Your task to perform on an android device: manage bookmarks in the chrome app Image 0: 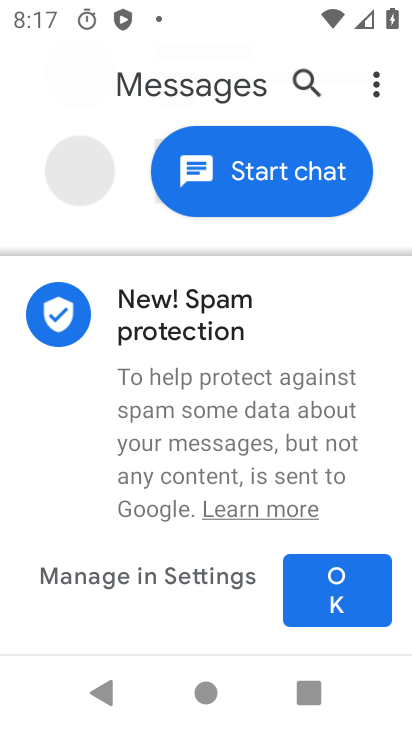
Step 0: press home button
Your task to perform on an android device: manage bookmarks in the chrome app Image 1: 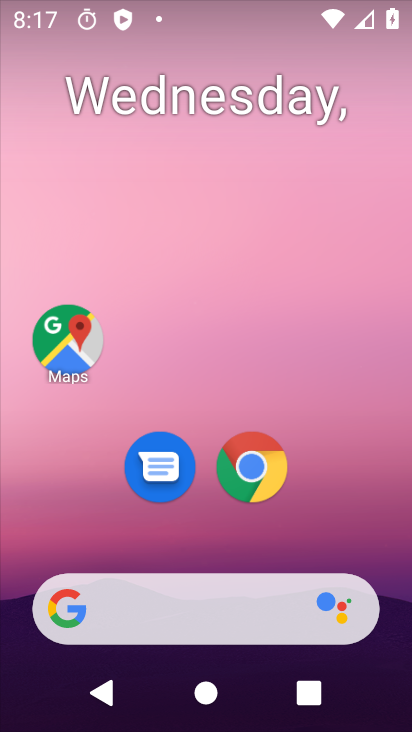
Step 1: click (247, 470)
Your task to perform on an android device: manage bookmarks in the chrome app Image 2: 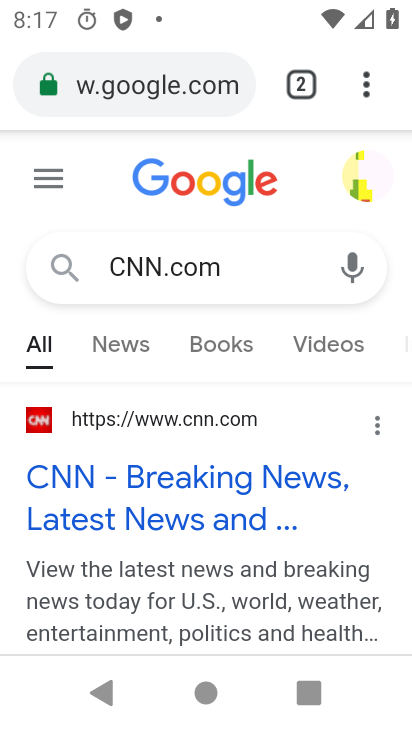
Step 2: click (361, 77)
Your task to perform on an android device: manage bookmarks in the chrome app Image 3: 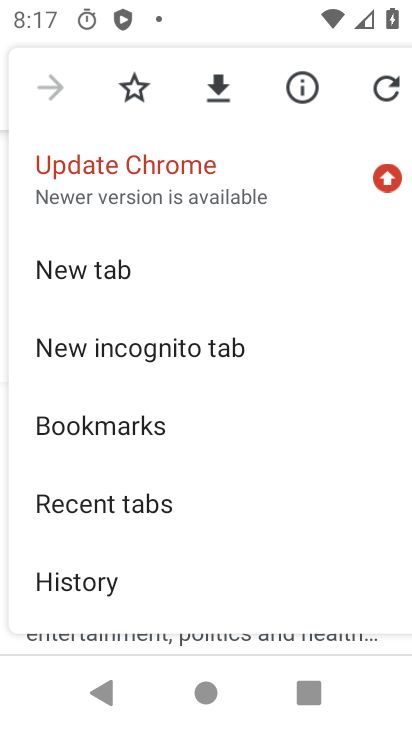
Step 3: drag from (281, 564) to (287, 252)
Your task to perform on an android device: manage bookmarks in the chrome app Image 4: 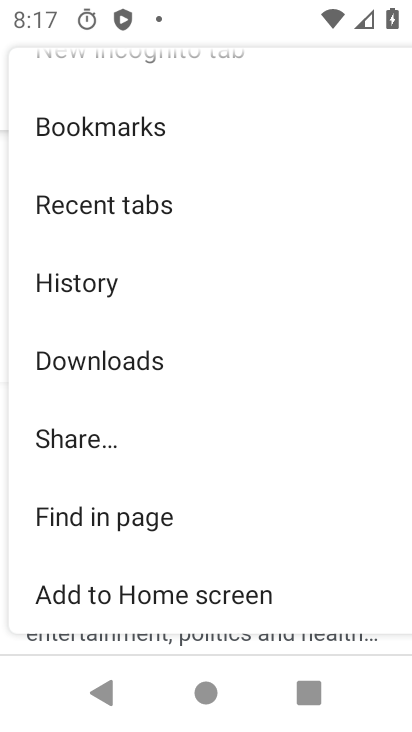
Step 4: drag from (274, 569) to (270, 257)
Your task to perform on an android device: manage bookmarks in the chrome app Image 5: 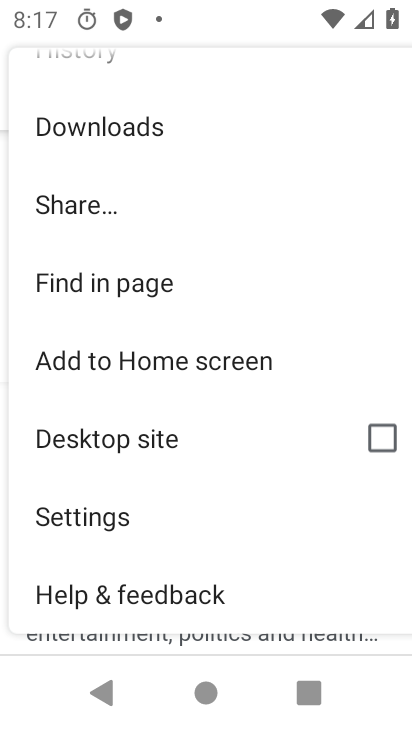
Step 5: drag from (254, 275) to (253, 531)
Your task to perform on an android device: manage bookmarks in the chrome app Image 6: 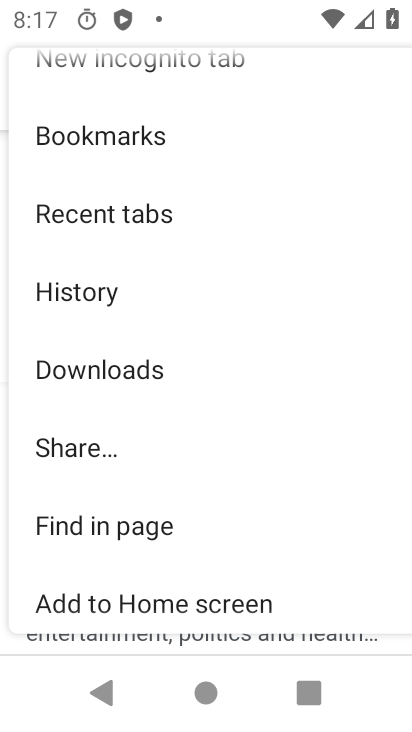
Step 6: drag from (297, 354) to (301, 511)
Your task to perform on an android device: manage bookmarks in the chrome app Image 7: 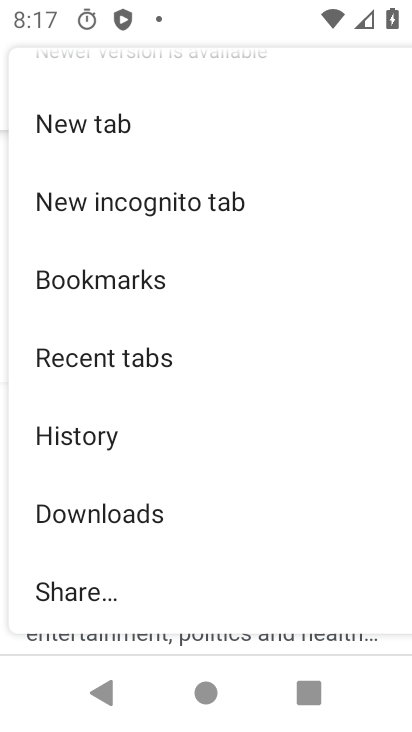
Step 7: click (117, 277)
Your task to perform on an android device: manage bookmarks in the chrome app Image 8: 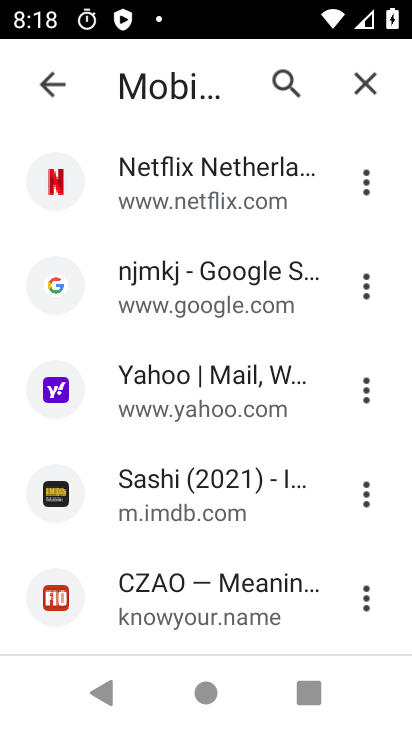
Step 8: click (365, 286)
Your task to perform on an android device: manage bookmarks in the chrome app Image 9: 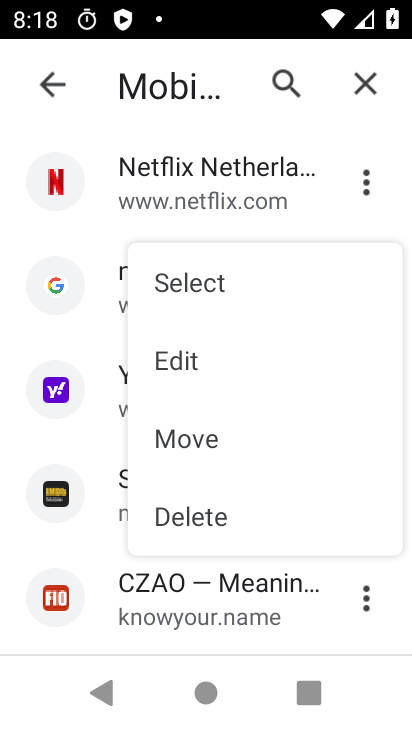
Step 9: click (196, 512)
Your task to perform on an android device: manage bookmarks in the chrome app Image 10: 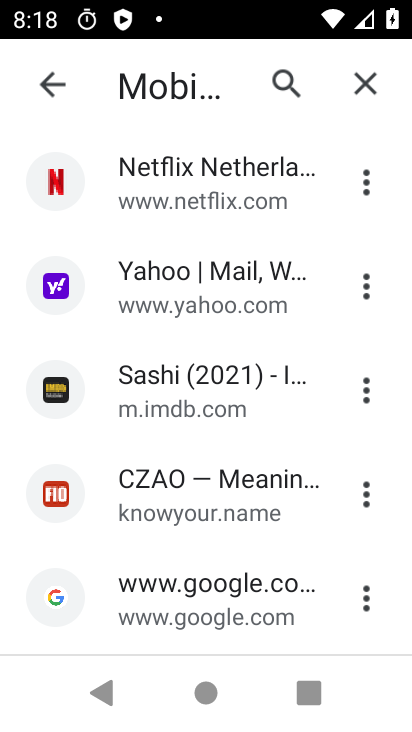
Step 10: task complete